Your task to perform on an android device: turn on airplane mode Image 0: 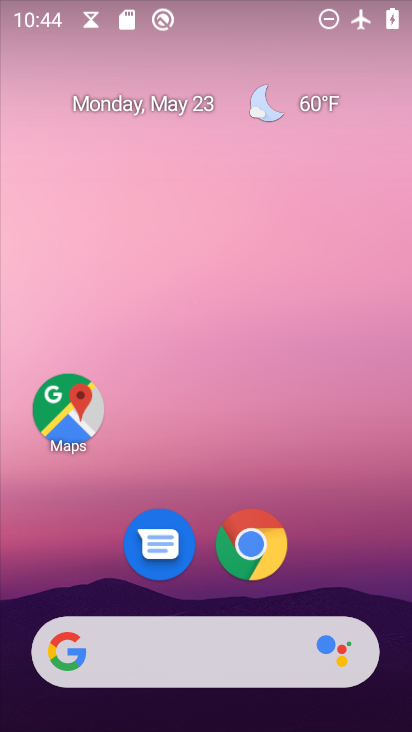
Step 0: drag from (321, 555) to (94, 134)
Your task to perform on an android device: turn on airplane mode Image 1: 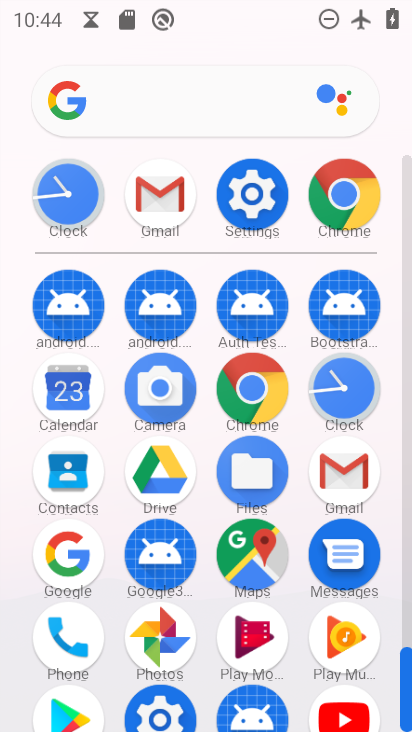
Step 1: click (265, 214)
Your task to perform on an android device: turn on airplane mode Image 2: 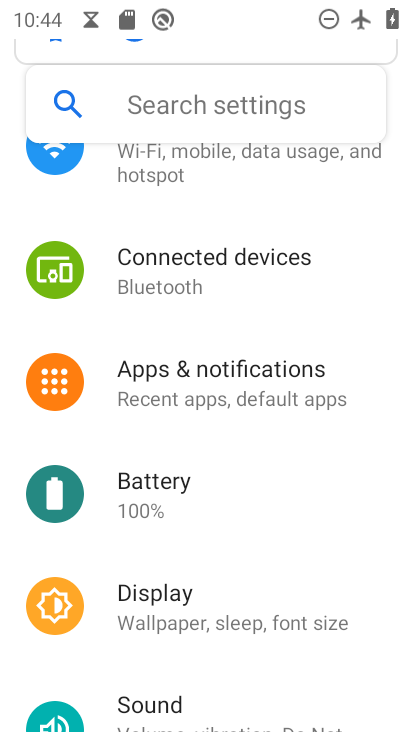
Step 2: click (240, 168)
Your task to perform on an android device: turn on airplane mode Image 3: 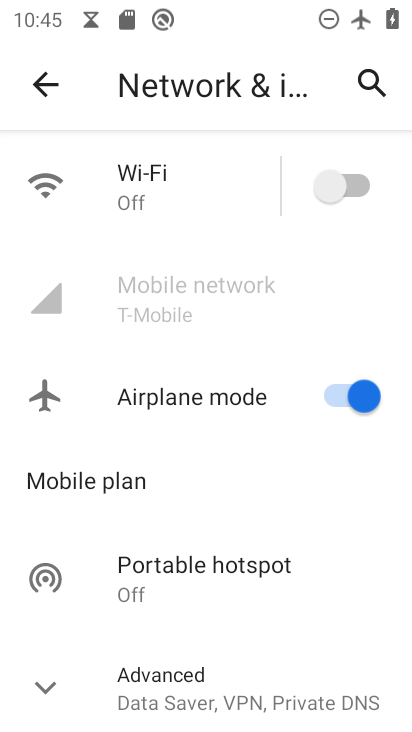
Step 3: task complete